Your task to perform on an android device: Turn on the flashlight Image 0: 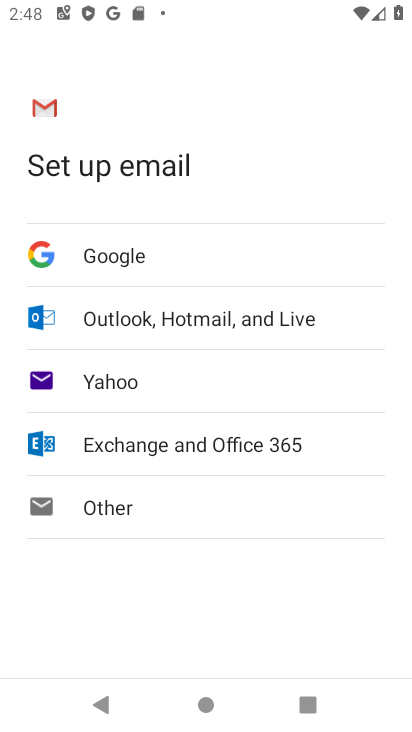
Step 0: press home button
Your task to perform on an android device: Turn on the flashlight Image 1: 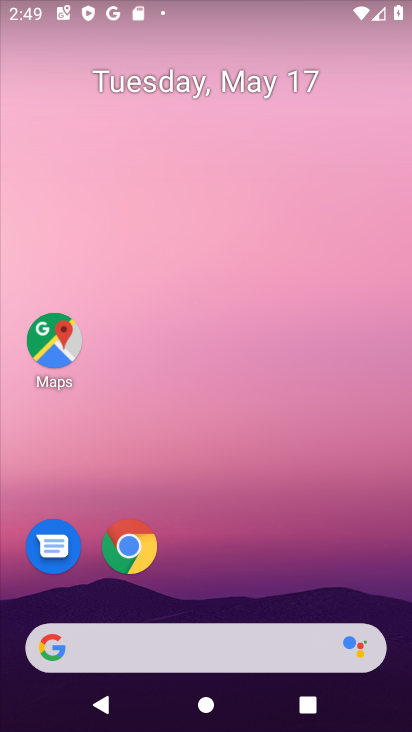
Step 1: drag from (346, 384) to (313, 190)
Your task to perform on an android device: Turn on the flashlight Image 2: 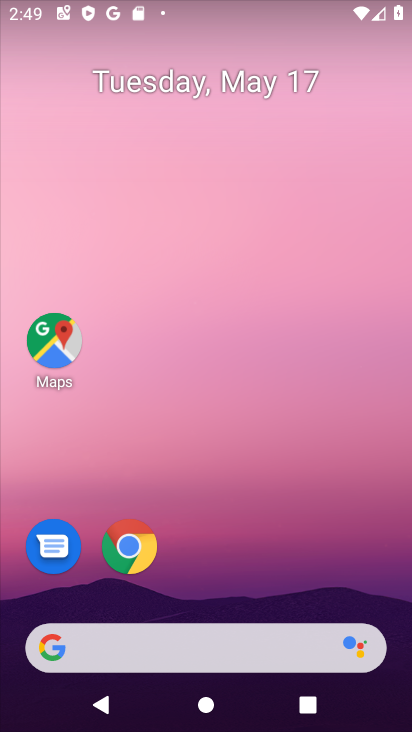
Step 2: drag from (402, 638) to (320, 193)
Your task to perform on an android device: Turn on the flashlight Image 3: 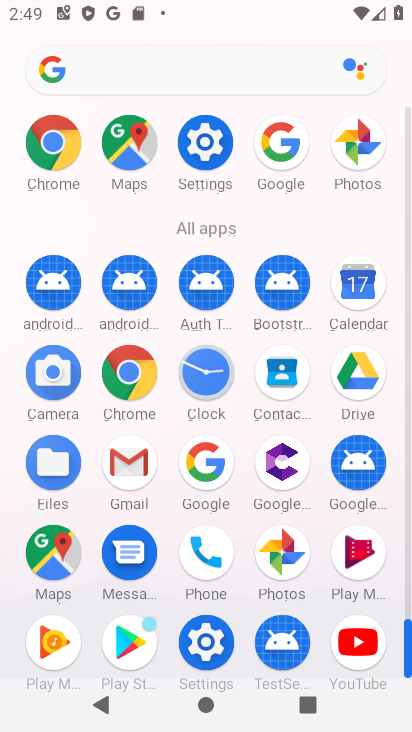
Step 3: click (197, 153)
Your task to perform on an android device: Turn on the flashlight Image 4: 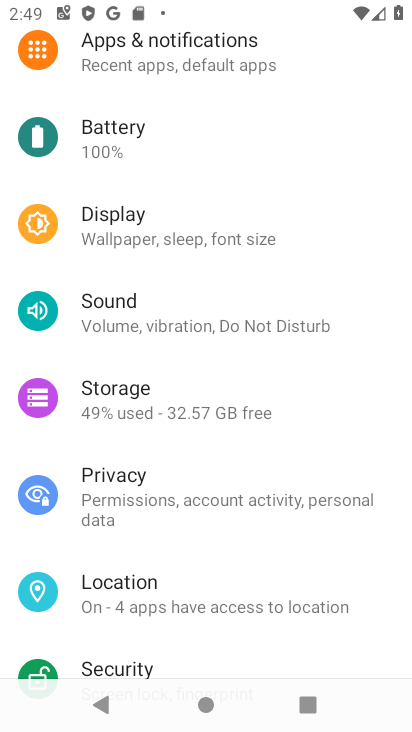
Step 4: click (157, 44)
Your task to perform on an android device: Turn on the flashlight Image 5: 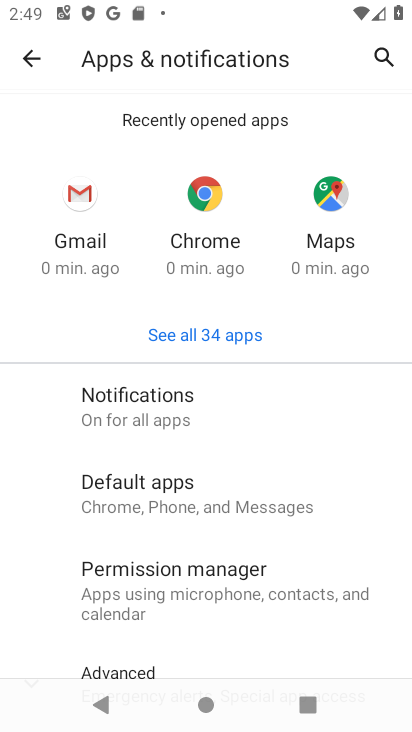
Step 5: task complete